Your task to perform on an android device: turn off improve location accuracy Image 0: 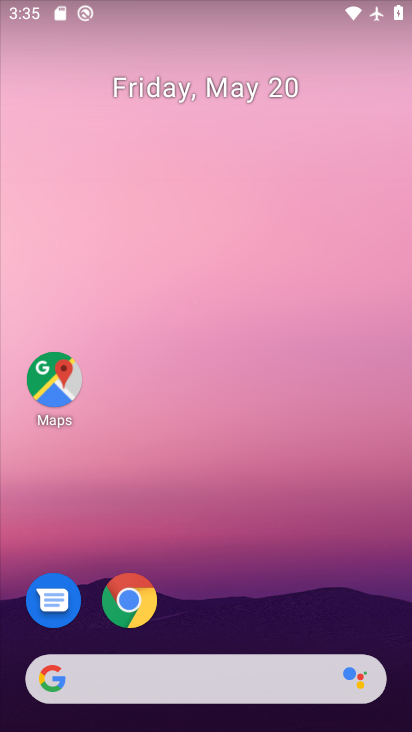
Step 0: drag from (267, 497) to (134, 54)
Your task to perform on an android device: turn off improve location accuracy Image 1: 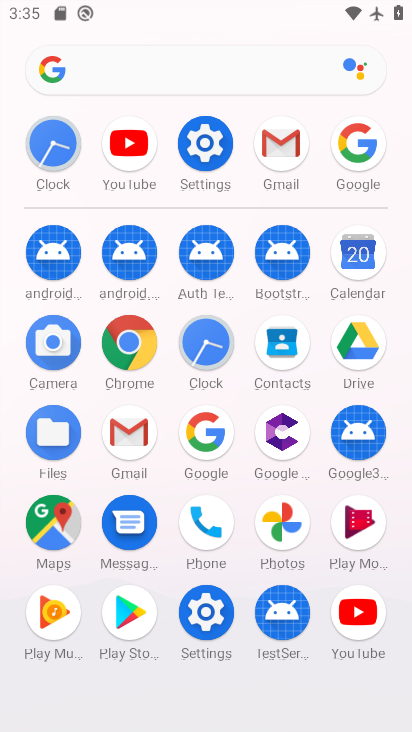
Step 1: click (209, 169)
Your task to perform on an android device: turn off improve location accuracy Image 2: 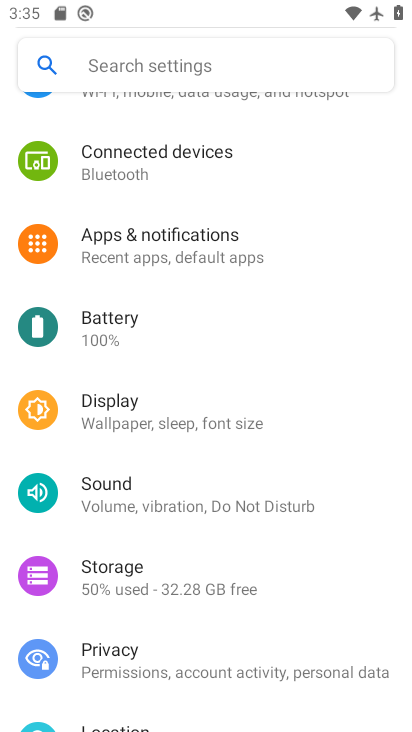
Step 2: drag from (248, 628) to (175, 205)
Your task to perform on an android device: turn off improve location accuracy Image 3: 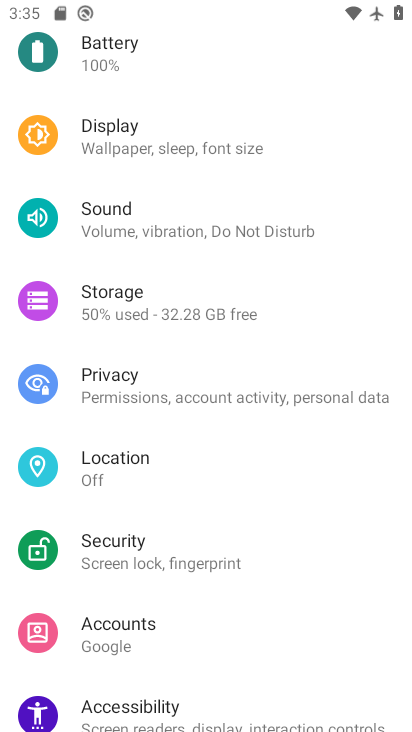
Step 3: click (182, 456)
Your task to perform on an android device: turn off improve location accuracy Image 4: 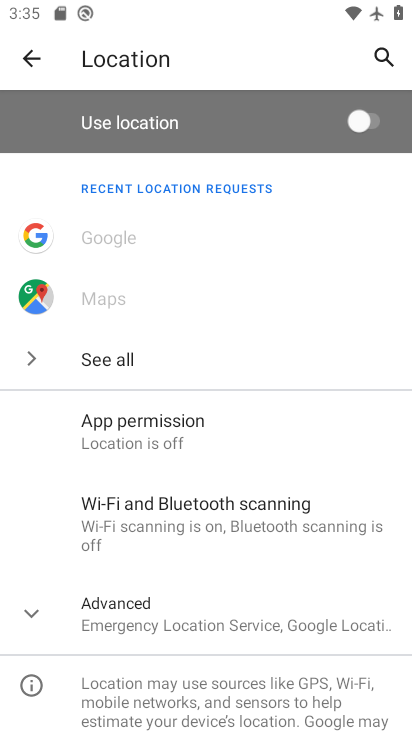
Step 4: drag from (217, 520) to (216, 202)
Your task to perform on an android device: turn off improve location accuracy Image 5: 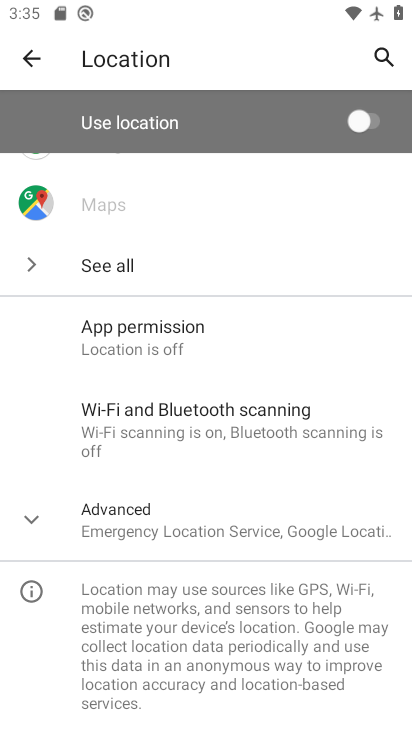
Step 5: click (206, 515)
Your task to perform on an android device: turn off improve location accuracy Image 6: 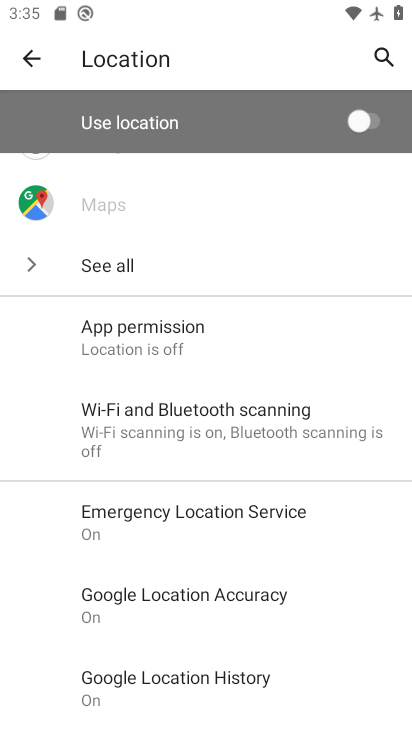
Step 6: click (223, 601)
Your task to perform on an android device: turn off improve location accuracy Image 7: 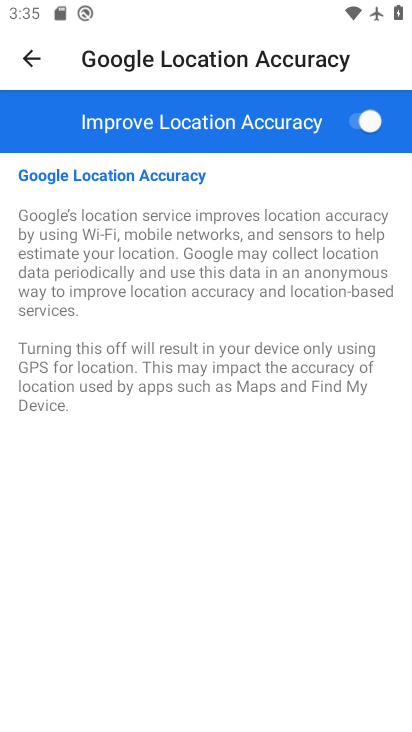
Step 7: click (368, 118)
Your task to perform on an android device: turn off improve location accuracy Image 8: 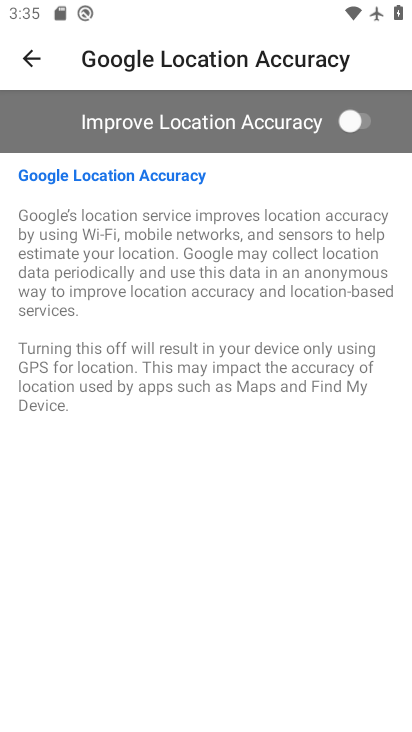
Step 8: task complete